Your task to perform on an android device: allow notifications from all sites in the chrome app Image 0: 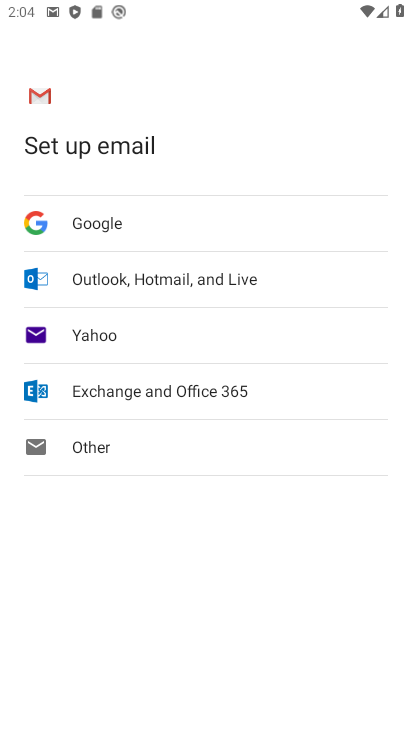
Step 0: click (242, 593)
Your task to perform on an android device: allow notifications from all sites in the chrome app Image 1: 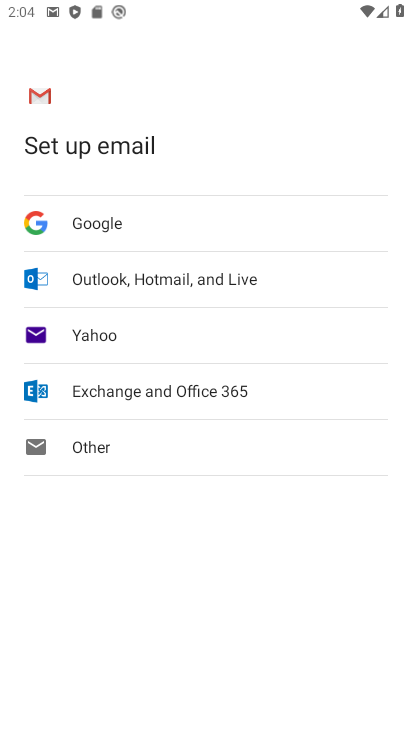
Step 1: press home button
Your task to perform on an android device: allow notifications from all sites in the chrome app Image 2: 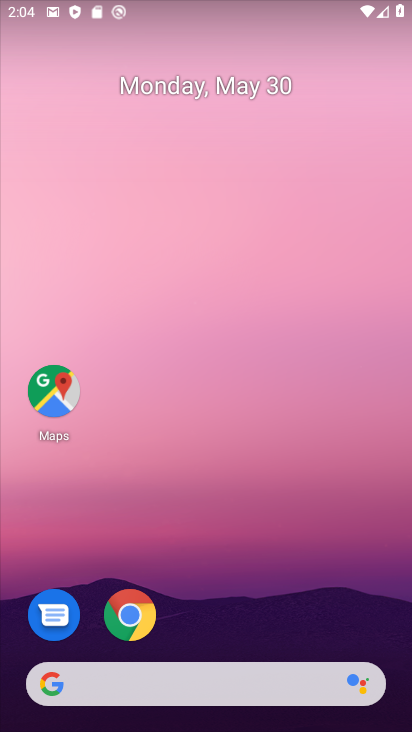
Step 2: click (131, 617)
Your task to perform on an android device: allow notifications from all sites in the chrome app Image 3: 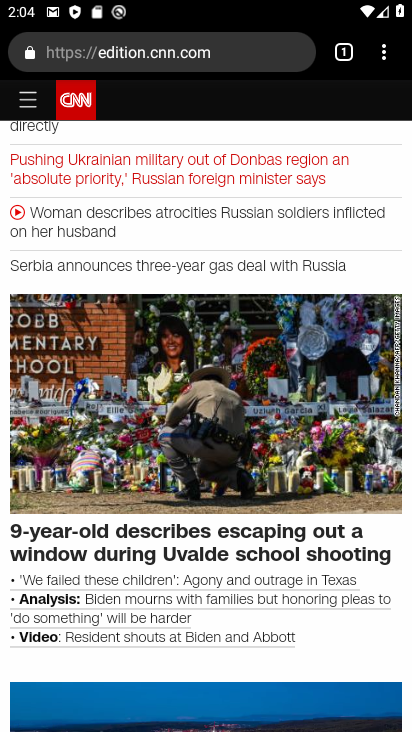
Step 3: click (383, 64)
Your task to perform on an android device: allow notifications from all sites in the chrome app Image 4: 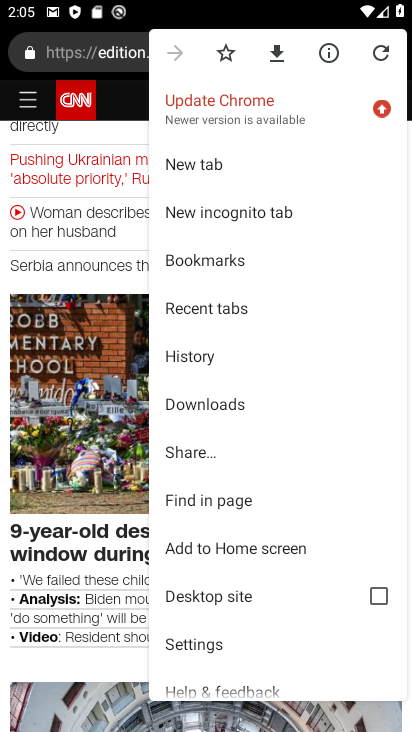
Step 4: click (219, 638)
Your task to perform on an android device: allow notifications from all sites in the chrome app Image 5: 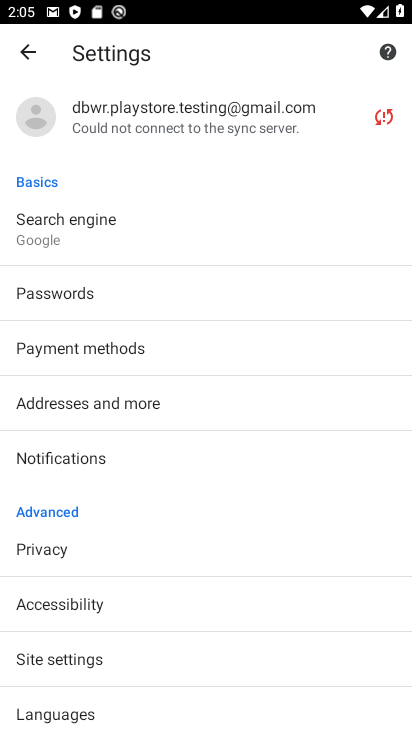
Step 5: click (214, 449)
Your task to perform on an android device: allow notifications from all sites in the chrome app Image 6: 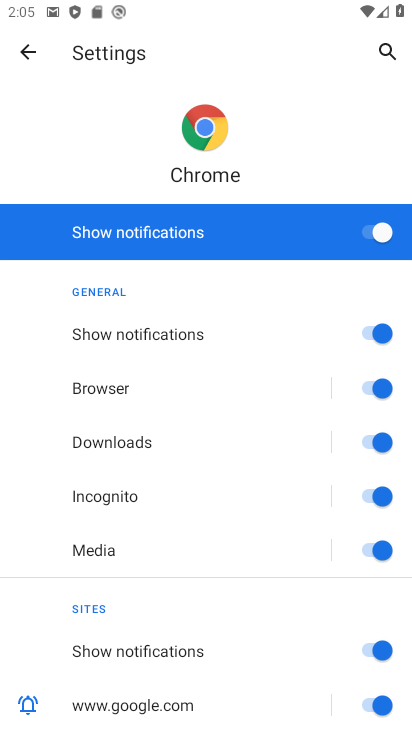
Step 6: task complete